Your task to perform on an android device: Go to Maps Image 0: 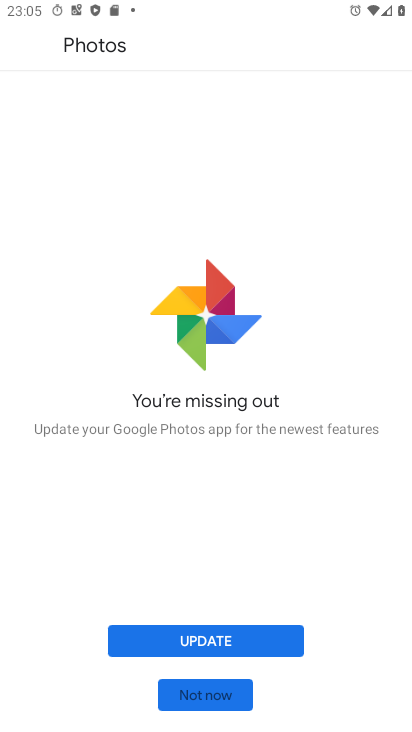
Step 0: press back button
Your task to perform on an android device: Go to Maps Image 1: 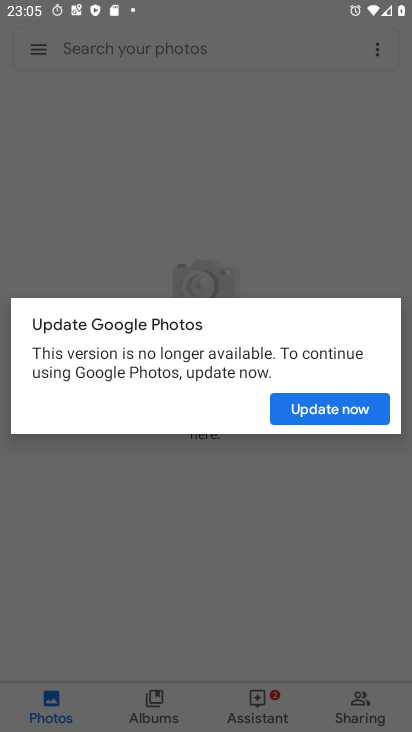
Step 1: press back button
Your task to perform on an android device: Go to Maps Image 2: 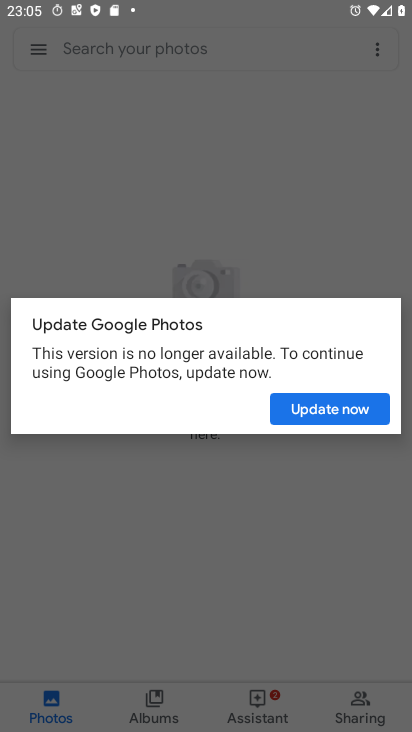
Step 2: click (293, 404)
Your task to perform on an android device: Go to Maps Image 3: 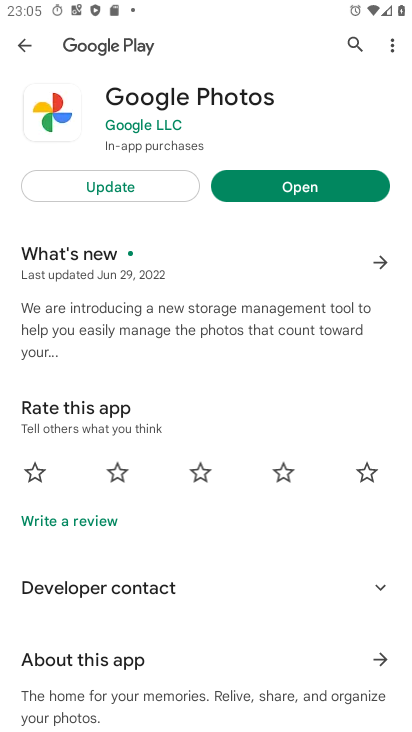
Step 3: press back button
Your task to perform on an android device: Go to Maps Image 4: 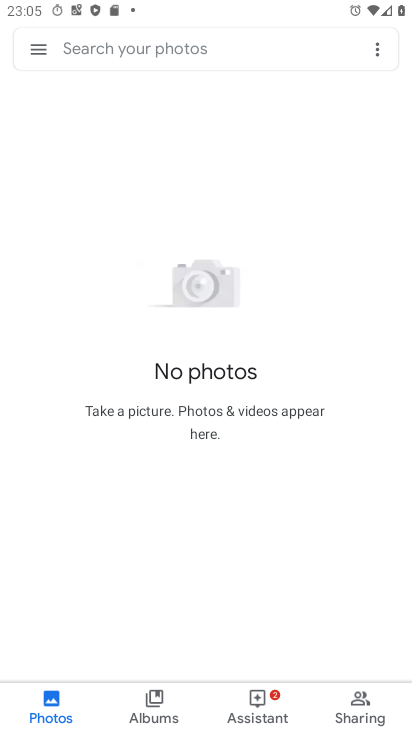
Step 4: press back button
Your task to perform on an android device: Go to Maps Image 5: 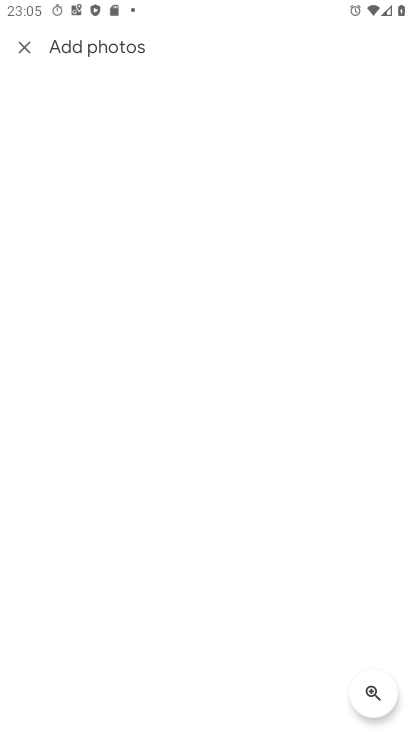
Step 5: press back button
Your task to perform on an android device: Go to Maps Image 6: 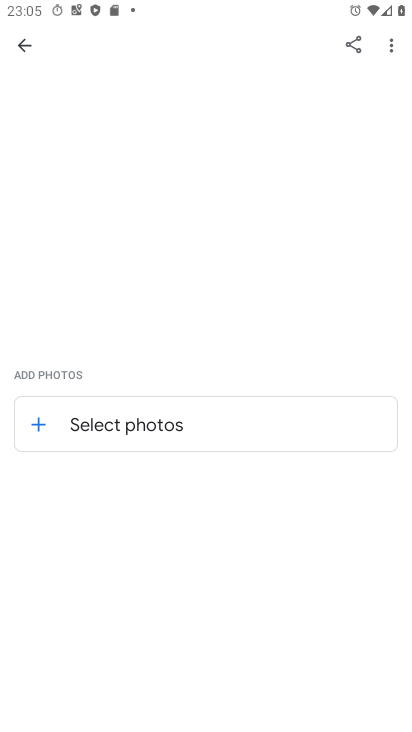
Step 6: press home button
Your task to perform on an android device: Go to Maps Image 7: 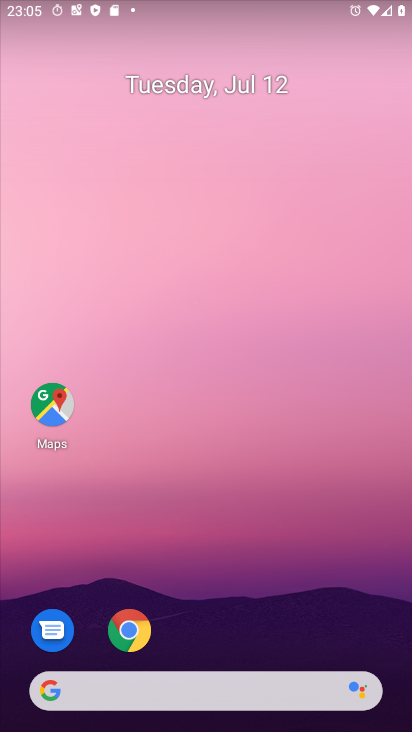
Step 7: click (54, 413)
Your task to perform on an android device: Go to Maps Image 8: 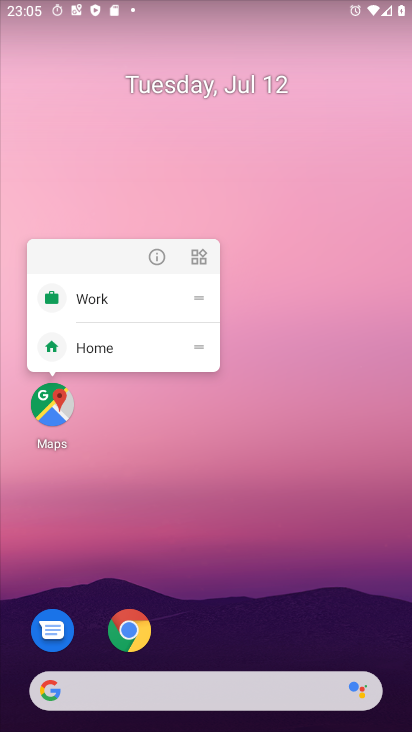
Step 8: click (55, 399)
Your task to perform on an android device: Go to Maps Image 9: 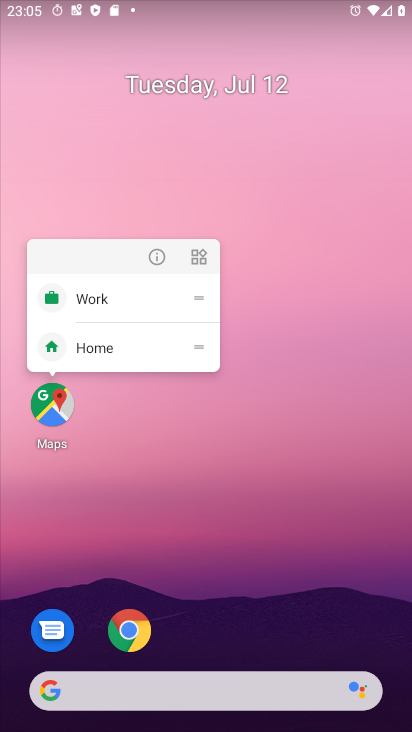
Step 9: click (48, 397)
Your task to perform on an android device: Go to Maps Image 10: 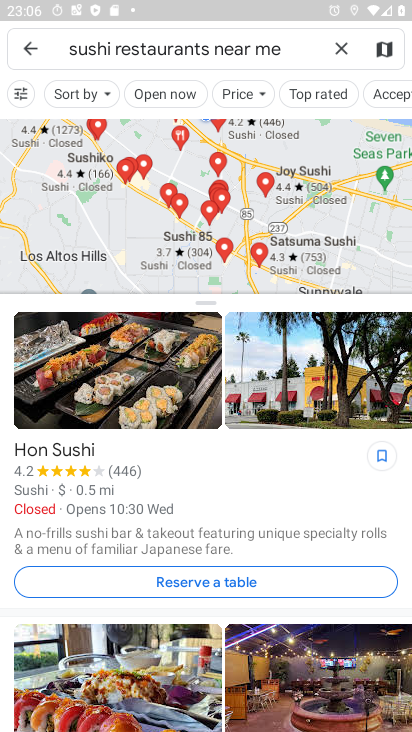
Step 10: task complete